Your task to perform on an android device: Do I have any events tomorrow? Image 0: 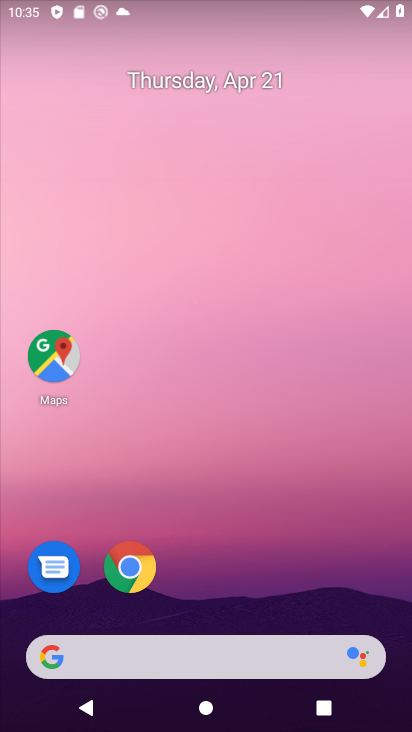
Step 0: drag from (270, 551) to (343, 109)
Your task to perform on an android device: Do I have any events tomorrow? Image 1: 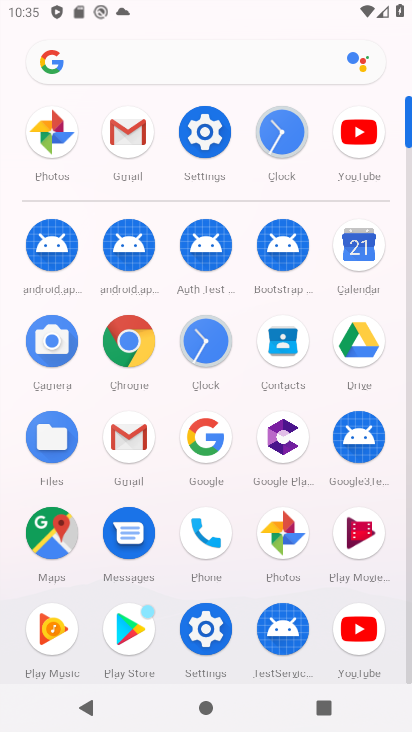
Step 1: click (198, 126)
Your task to perform on an android device: Do I have any events tomorrow? Image 2: 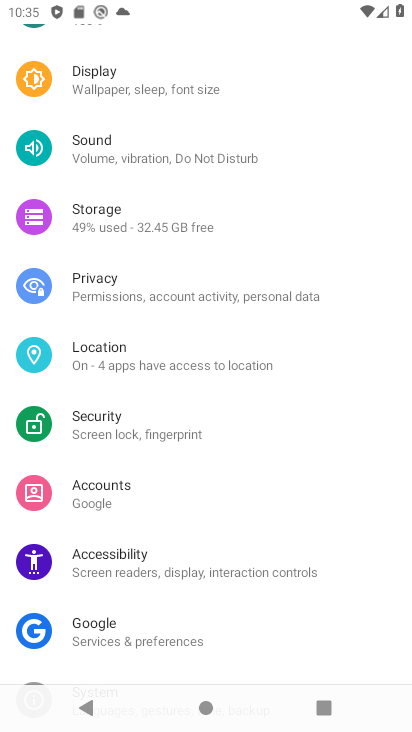
Step 2: press home button
Your task to perform on an android device: Do I have any events tomorrow? Image 3: 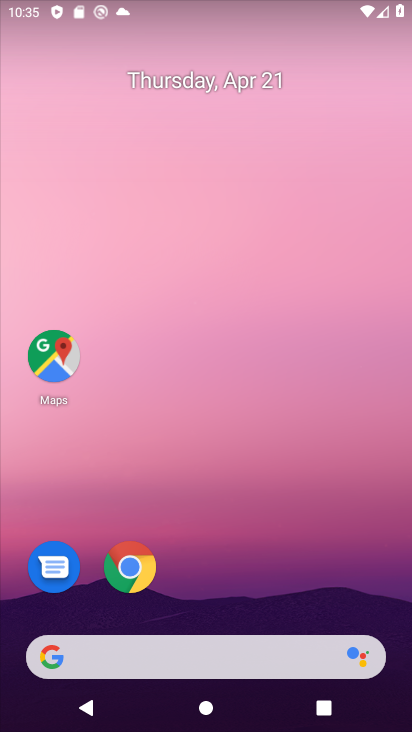
Step 3: drag from (238, 629) to (295, 52)
Your task to perform on an android device: Do I have any events tomorrow? Image 4: 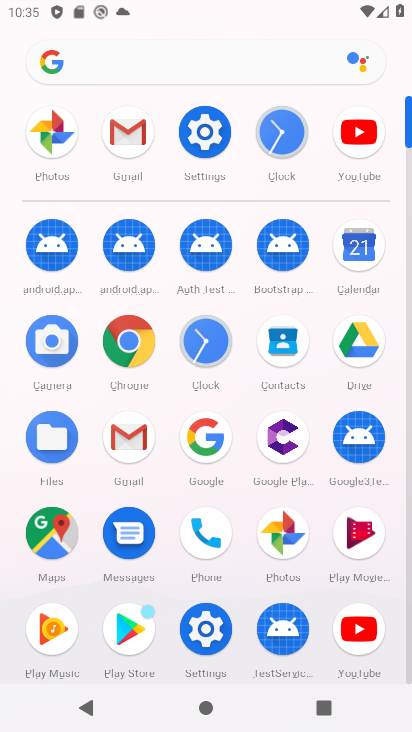
Step 4: click (357, 246)
Your task to perform on an android device: Do I have any events tomorrow? Image 5: 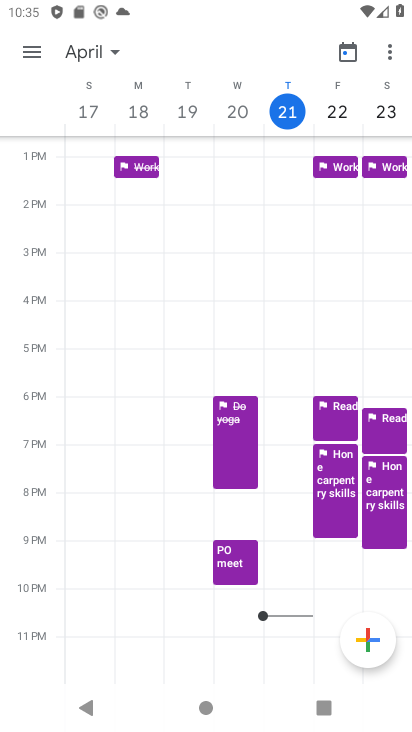
Step 5: click (36, 47)
Your task to perform on an android device: Do I have any events tomorrow? Image 6: 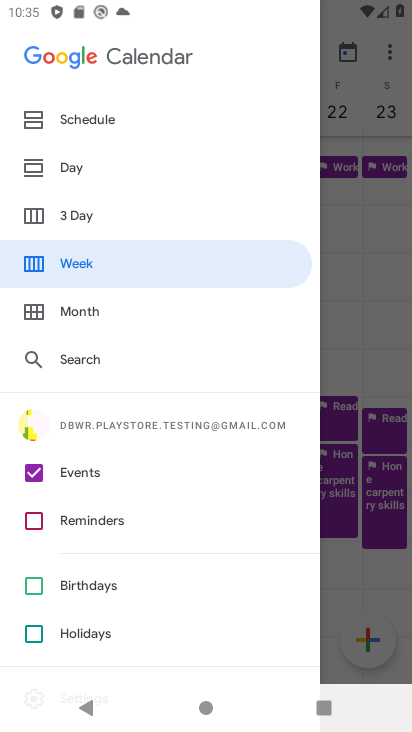
Step 6: click (78, 162)
Your task to perform on an android device: Do I have any events tomorrow? Image 7: 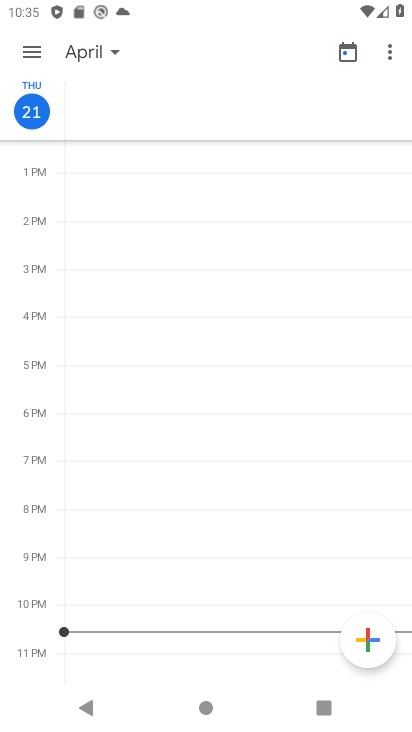
Step 7: click (18, 47)
Your task to perform on an android device: Do I have any events tomorrow? Image 8: 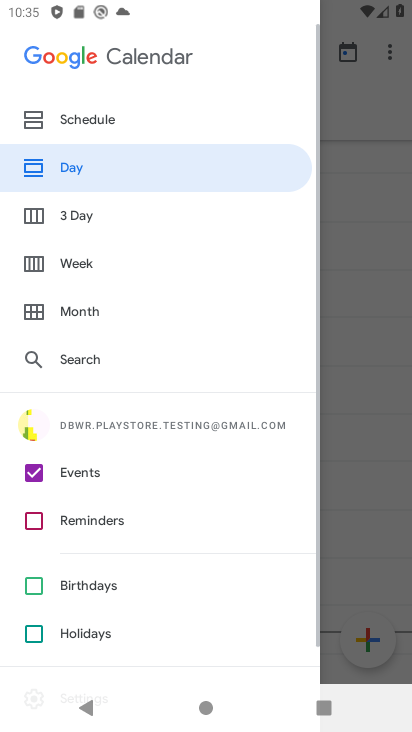
Step 8: click (111, 214)
Your task to perform on an android device: Do I have any events tomorrow? Image 9: 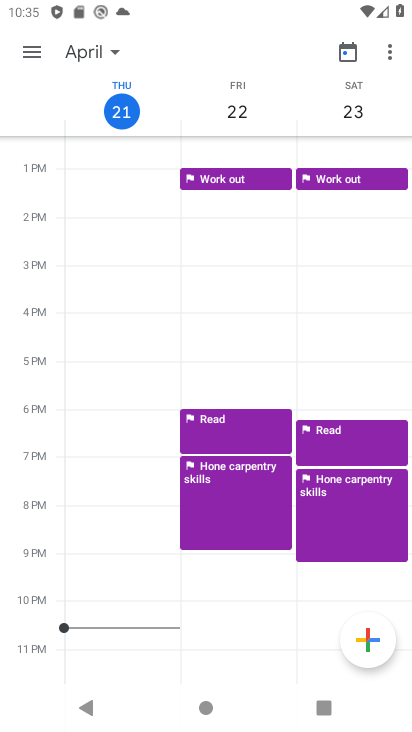
Step 9: task complete